Your task to perform on an android device: Go to eBay Image 0: 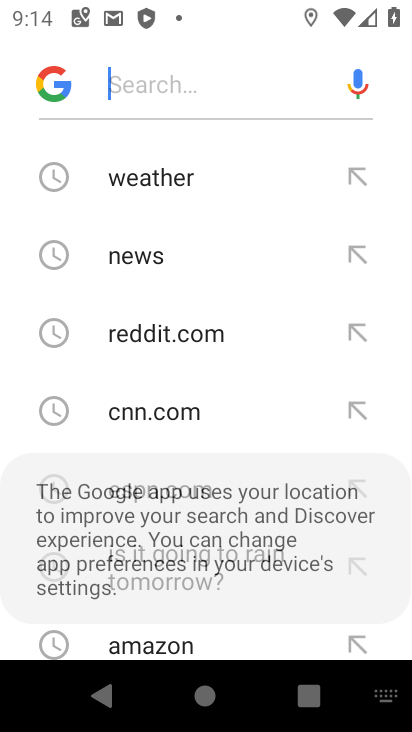
Step 0: press home button
Your task to perform on an android device: Go to eBay Image 1: 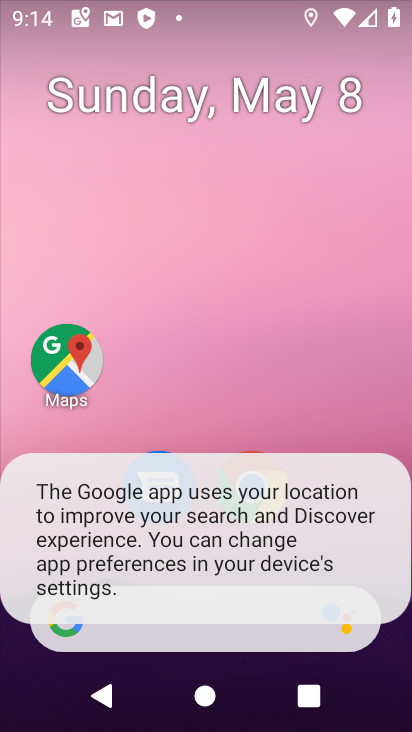
Step 1: drag from (398, 614) to (272, 61)
Your task to perform on an android device: Go to eBay Image 2: 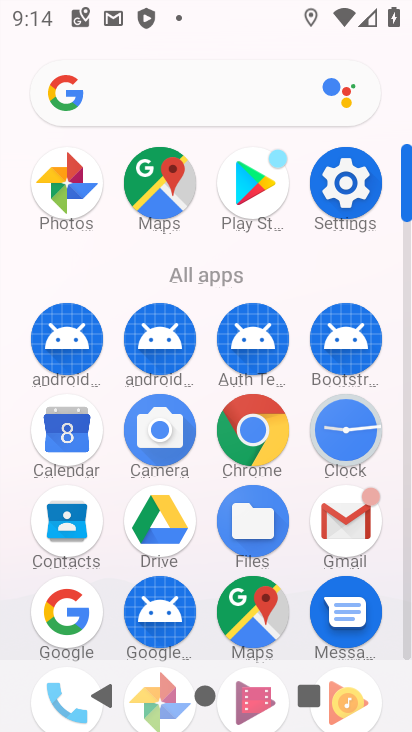
Step 2: click (235, 433)
Your task to perform on an android device: Go to eBay Image 3: 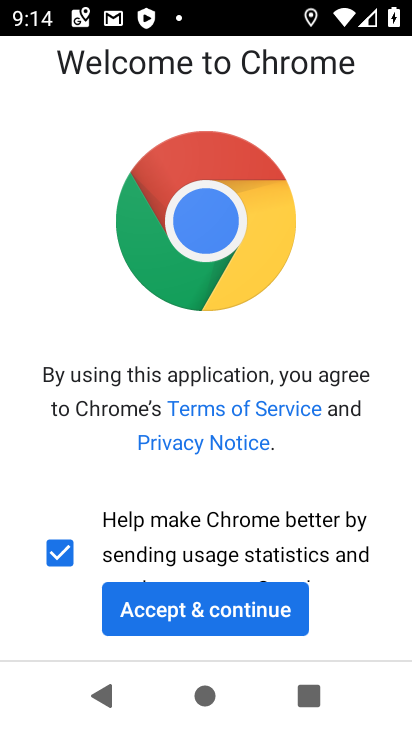
Step 3: click (201, 597)
Your task to perform on an android device: Go to eBay Image 4: 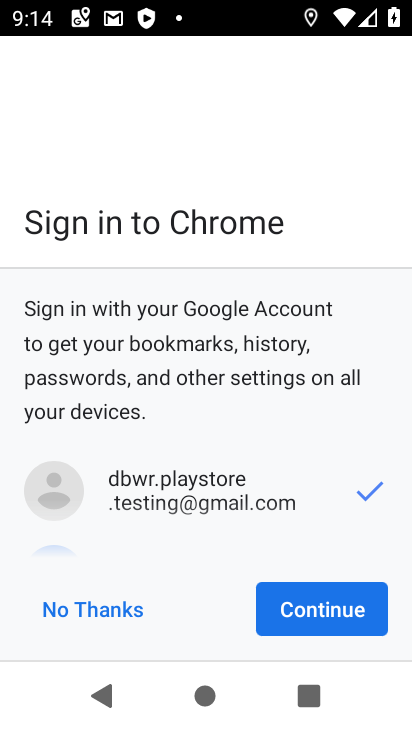
Step 4: click (314, 603)
Your task to perform on an android device: Go to eBay Image 5: 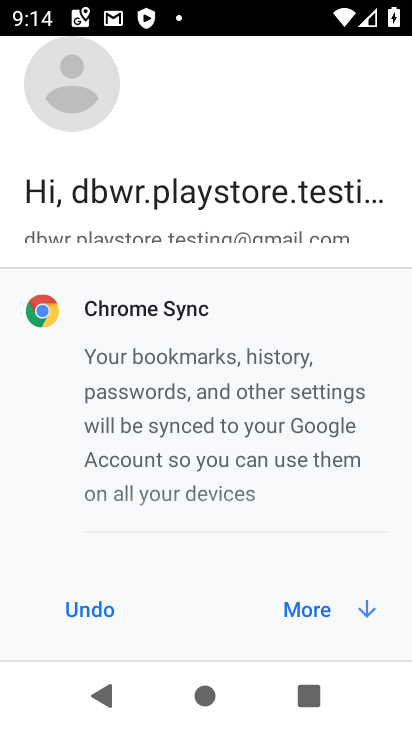
Step 5: click (314, 603)
Your task to perform on an android device: Go to eBay Image 6: 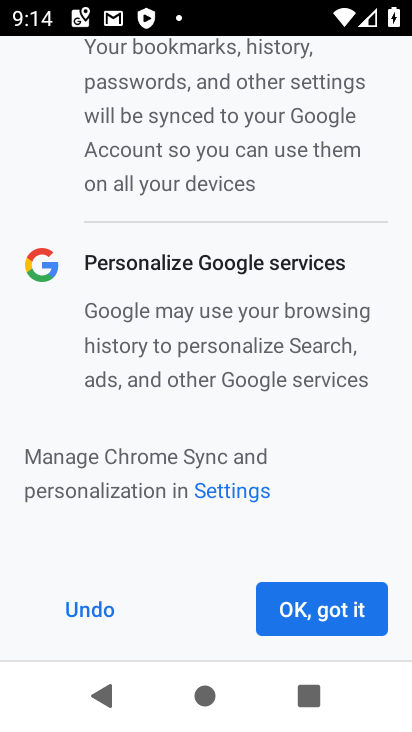
Step 6: click (314, 603)
Your task to perform on an android device: Go to eBay Image 7: 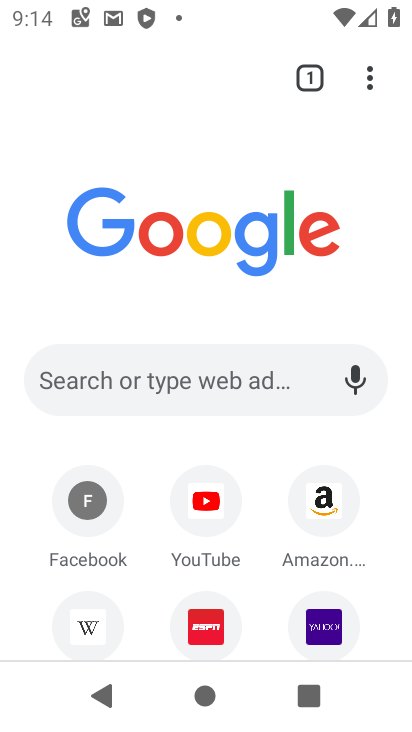
Step 7: drag from (141, 582) to (148, 109)
Your task to perform on an android device: Go to eBay Image 8: 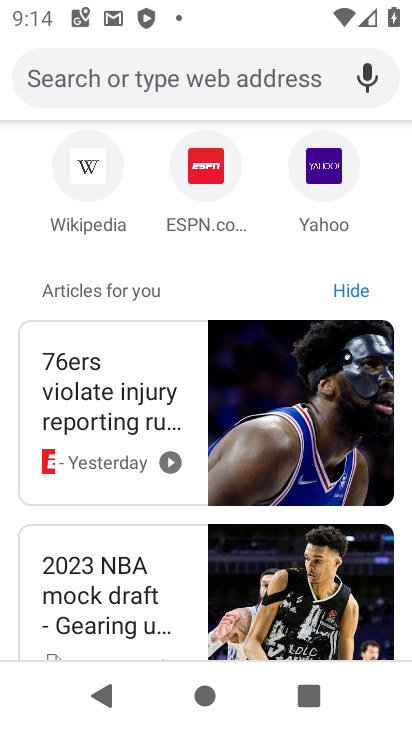
Step 8: drag from (151, 207) to (157, 526)
Your task to perform on an android device: Go to eBay Image 9: 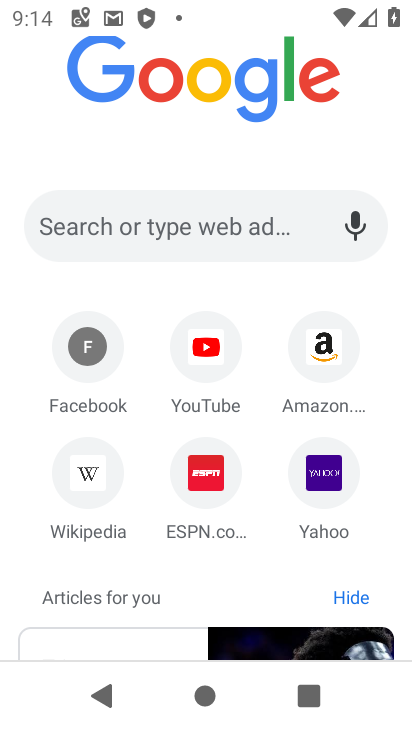
Step 9: click (196, 216)
Your task to perform on an android device: Go to eBay Image 10: 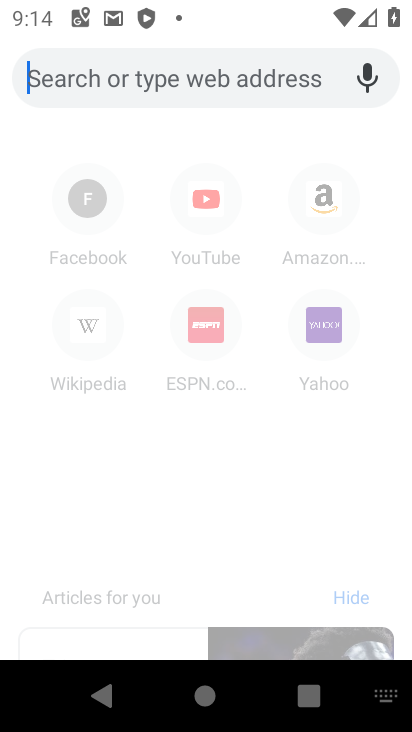
Step 10: type "ebay"
Your task to perform on an android device: Go to eBay Image 11: 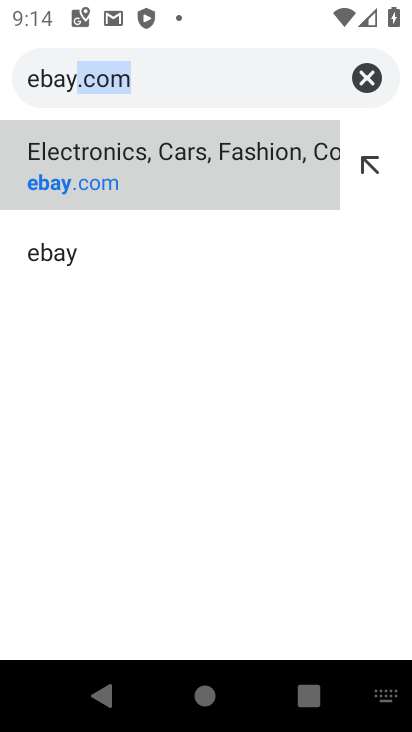
Step 11: click (138, 191)
Your task to perform on an android device: Go to eBay Image 12: 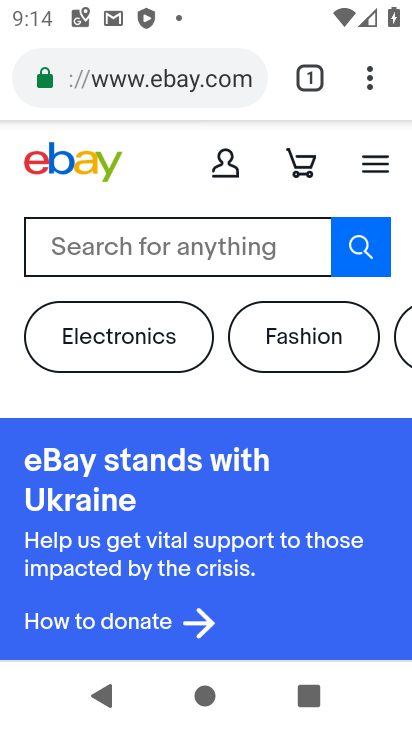
Step 12: task complete